Your task to perform on an android device: Open the map Image 0: 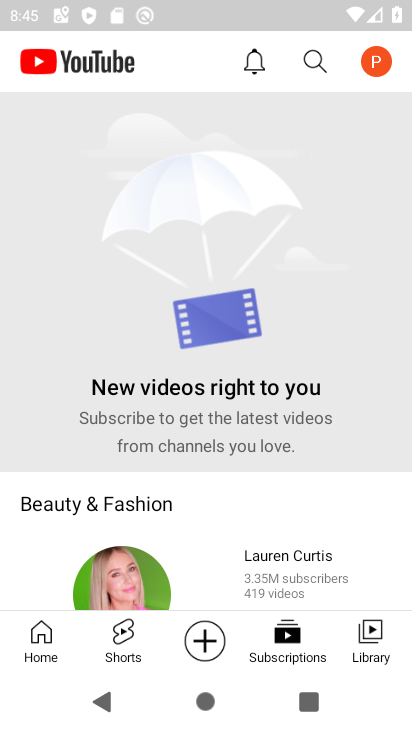
Step 0: press home button
Your task to perform on an android device: Open the map Image 1: 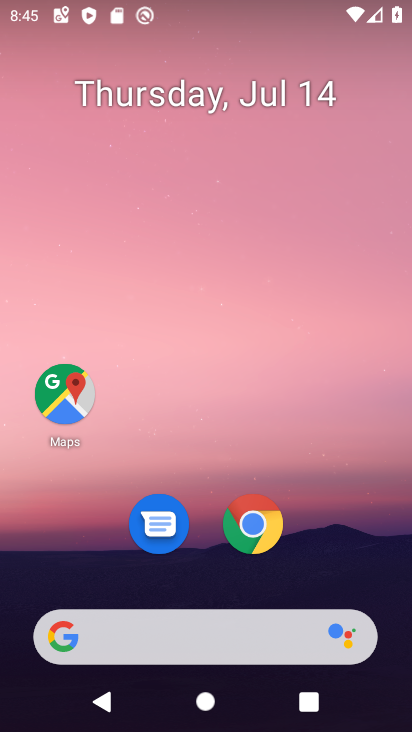
Step 1: click (64, 415)
Your task to perform on an android device: Open the map Image 2: 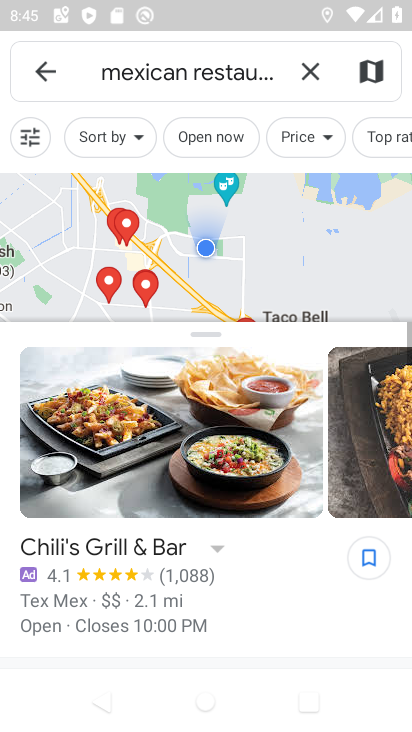
Step 2: click (312, 64)
Your task to perform on an android device: Open the map Image 3: 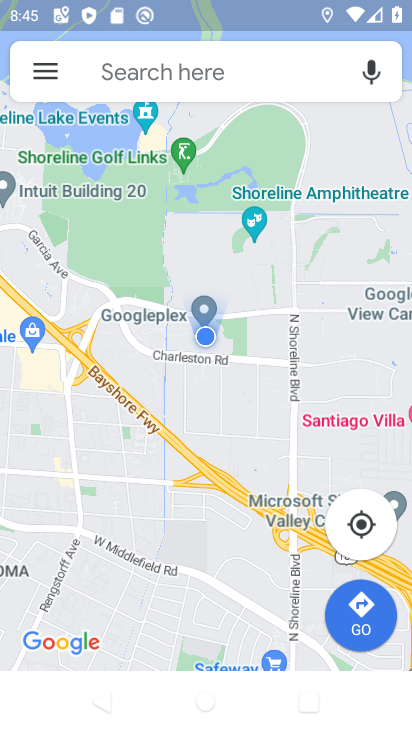
Step 3: task complete